Your task to perform on an android device: toggle priority inbox in the gmail app Image 0: 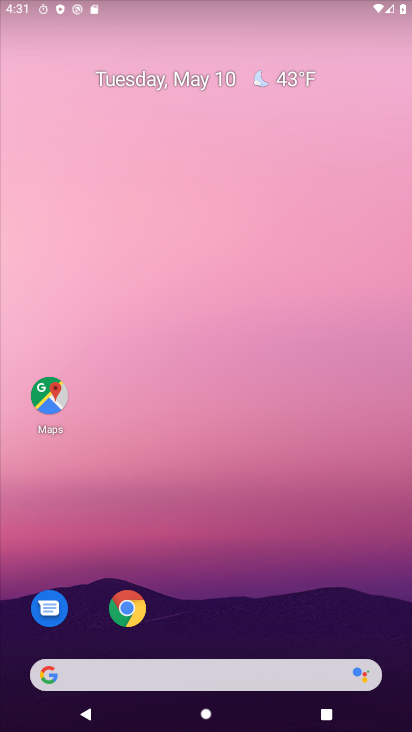
Step 0: drag from (69, 10) to (373, 176)
Your task to perform on an android device: toggle priority inbox in the gmail app Image 1: 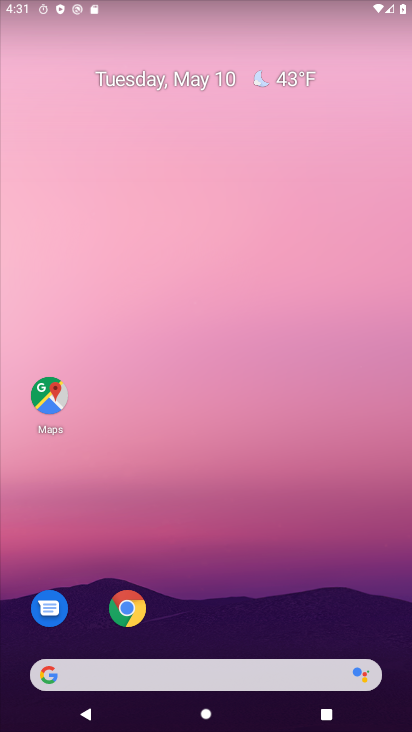
Step 1: click (155, 168)
Your task to perform on an android device: toggle priority inbox in the gmail app Image 2: 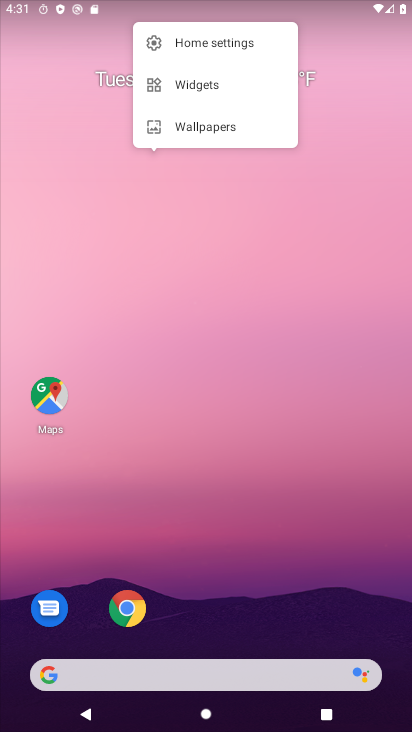
Step 2: drag from (157, 264) to (142, 212)
Your task to perform on an android device: toggle priority inbox in the gmail app Image 3: 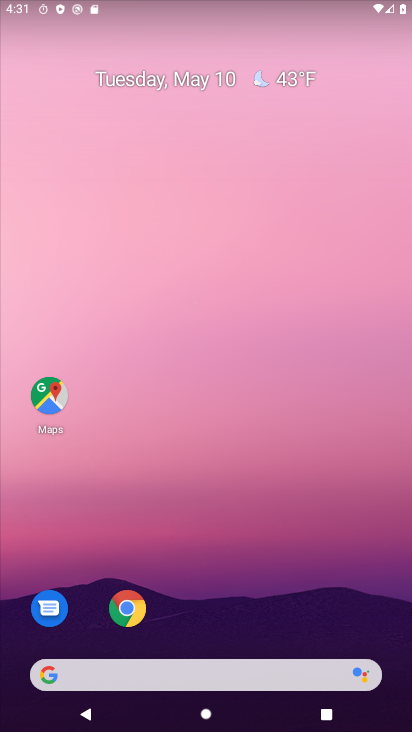
Step 3: drag from (148, 267) to (38, 13)
Your task to perform on an android device: toggle priority inbox in the gmail app Image 4: 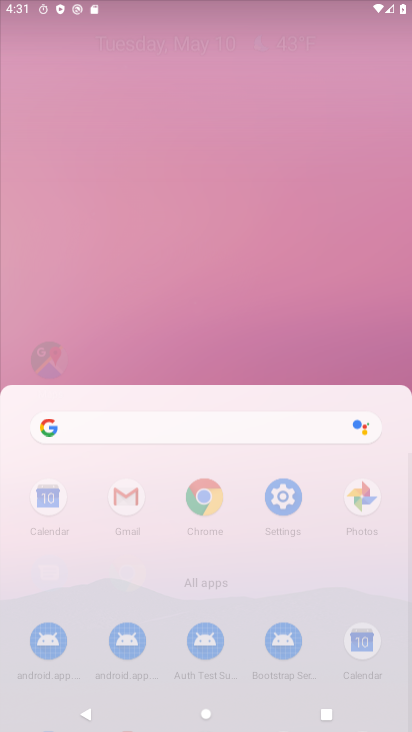
Step 4: drag from (181, 429) to (45, 31)
Your task to perform on an android device: toggle priority inbox in the gmail app Image 5: 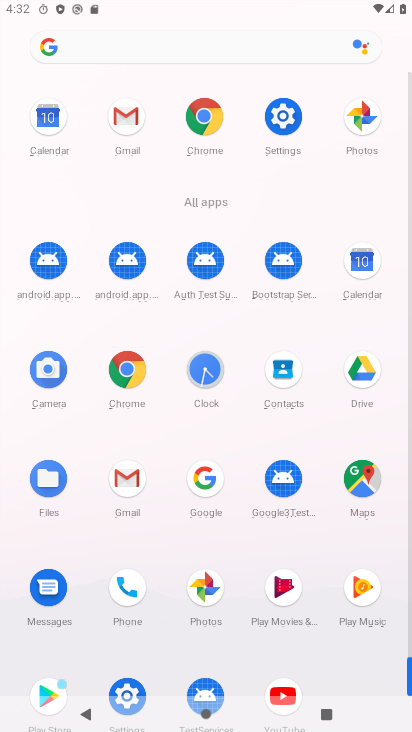
Step 5: click (123, 485)
Your task to perform on an android device: toggle priority inbox in the gmail app Image 6: 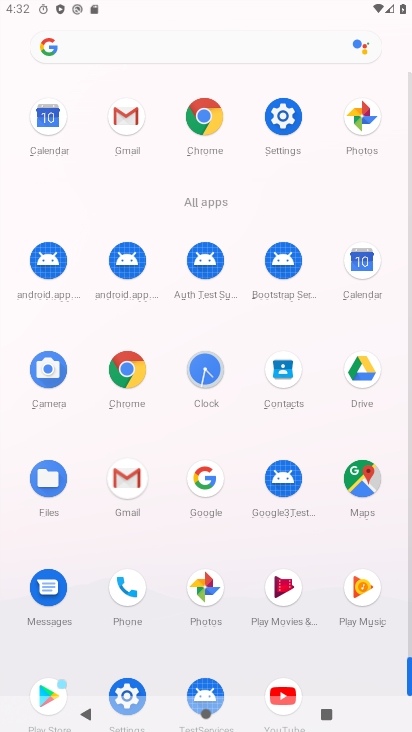
Step 6: click (120, 483)
Your task to perform on an android device: toggle priority inbox in the gmail app Image 7: 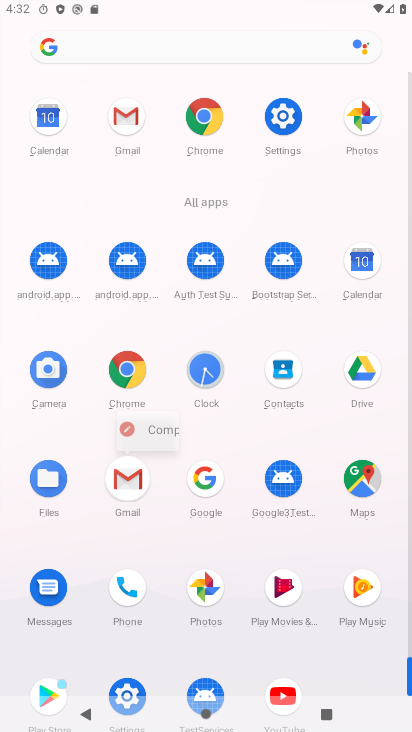
Step 7: click (119, 480)
Your task to perform on an android device: toggle priority inbox in the gmail app Image 8: 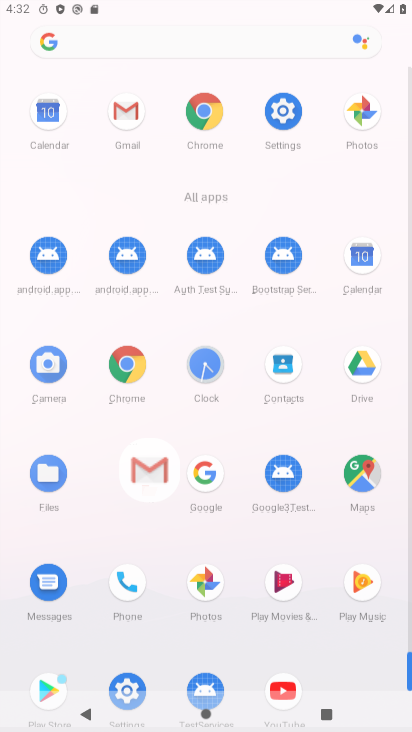
Step 8: click (115, 473)
Your task to perform on an android device: toggle priority inbox in the gmail app Image 9: 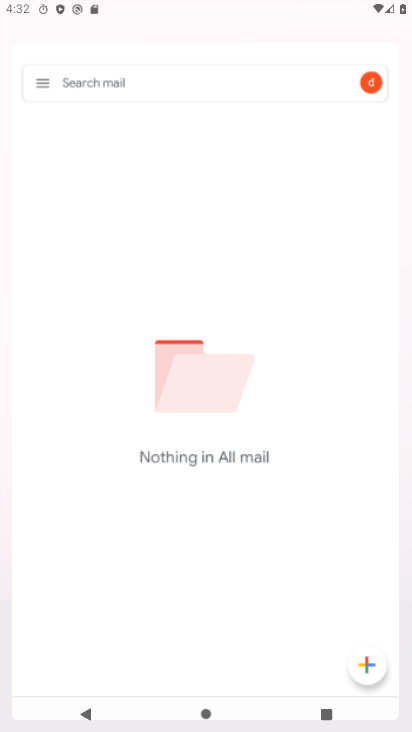
Step 9: click (121, 483)
Your task to perform on an android device: toggle priority inbox in the gmail app Image 10: 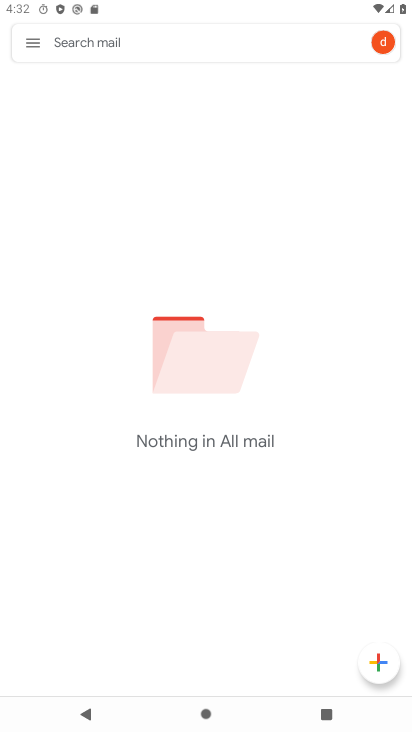
Step 10: click (122, 483)
Your task to perform on an android device: toggle priority inbox in the gmail app Image 11: 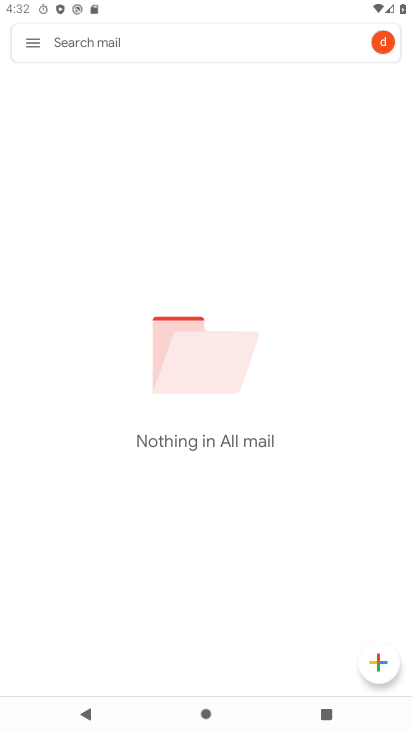
Step 11: drag from (35, 45) to (94, 665)
Your task to perform on an android device: toggle priority inbox in the gmail app Image 12: 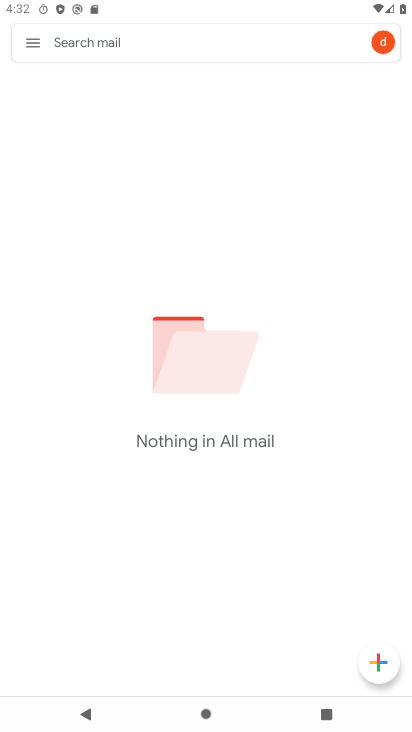
Step 12: click (33, 46)
Your task to perform on an android device: toggle priority inbox in the gmail app Image 13: 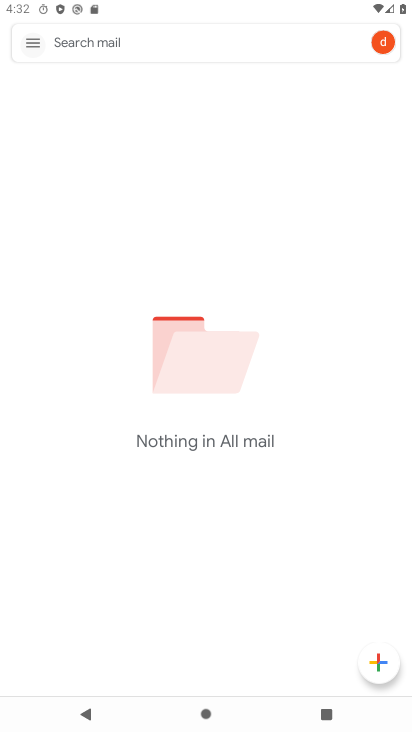
Step 13: click (33, 46)
Your task to perform on an android device: toggle priority inbox in the gmail app Image 14: 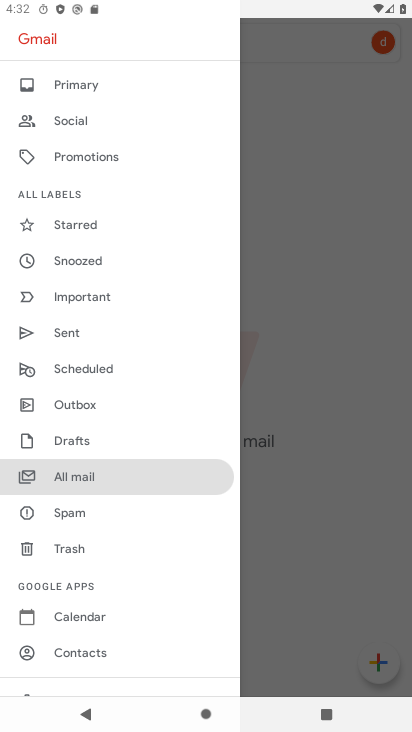
Step 14: drag from (90, 374) to (71, 168)
Your task to perform on an android device: toggle priority inbox in the gmail app Image 15: 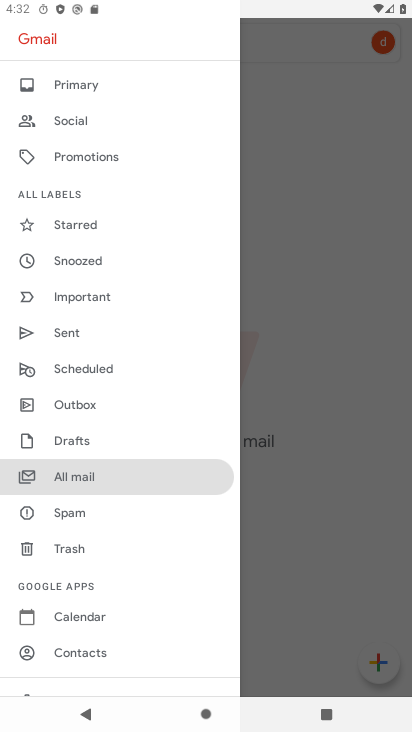
Step 15: drag from (193, 484) to (146, 75)
Your task to perform on an android device: toggle priority inbox in the gmail app Image 16: 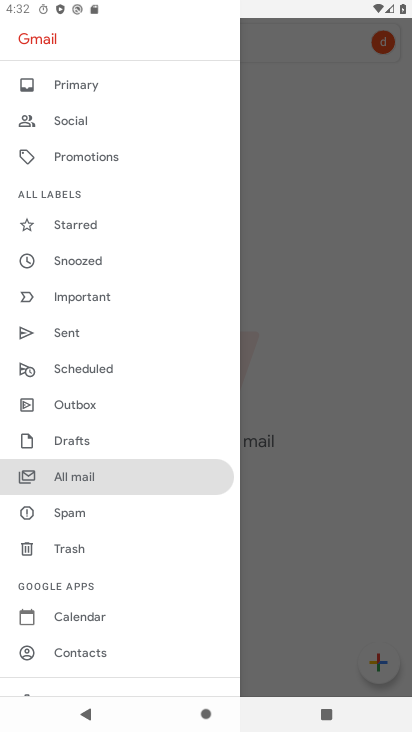
Step 16: drag from (84, 639) to (77, 202)
Your task to perform on an android device: toggle priority inbox in the gmail app Image 17: 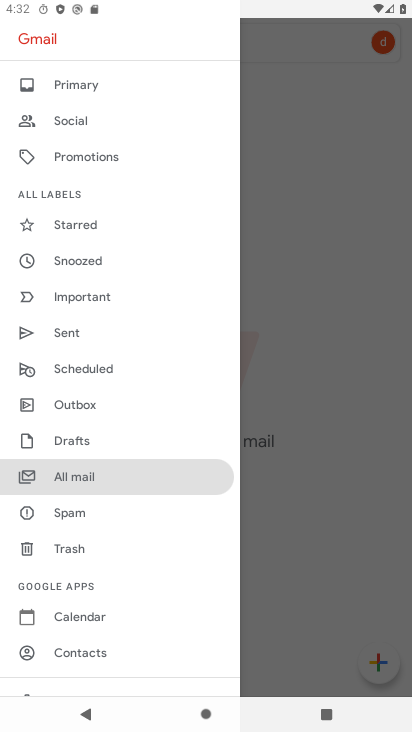
Step 17: click (102, 61)
Your task to perform on an android device: toggle priority inbox in the gmail app Image 18: 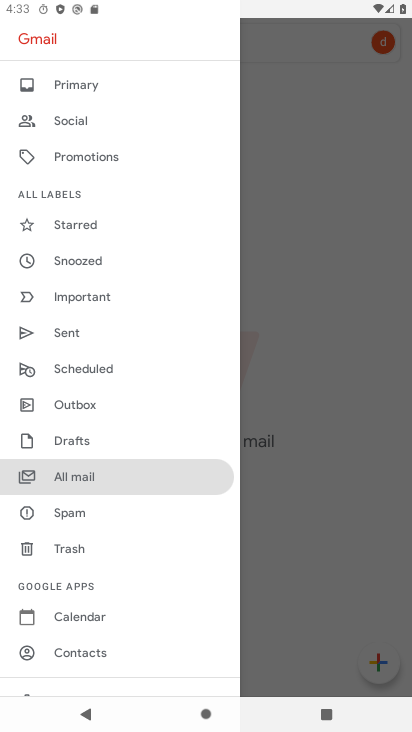
Step 18: drag from (94, 411) to (89, 237)
Your task to perform on an android device: toggle priority inbox in the gmail app Image 19: 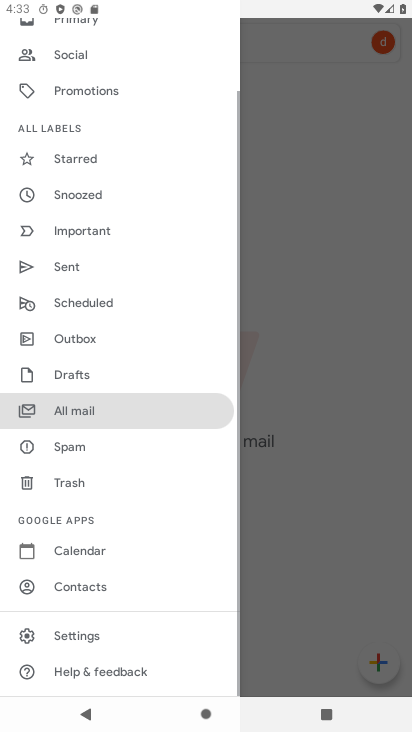
Step 19: drag from (121, 427) to (114, 126)
Your task to perform on an android device: toggle priority inbox in the gmail app Image 20: 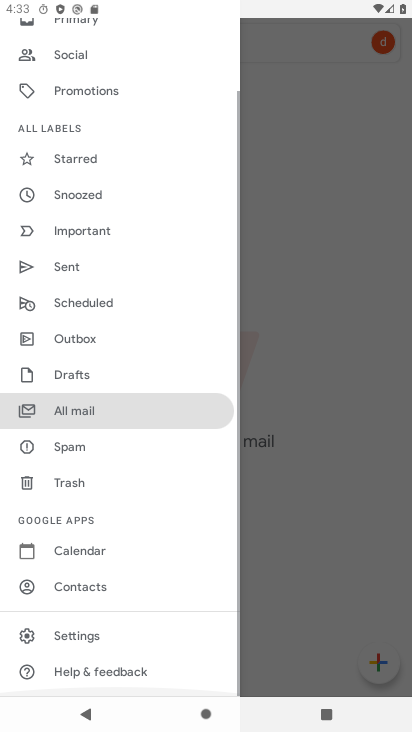
Step 20: drag from (113, 450) to (92, 211)
Your task to perform on an android device: toggle priority inbox in the gmail app Image 21: 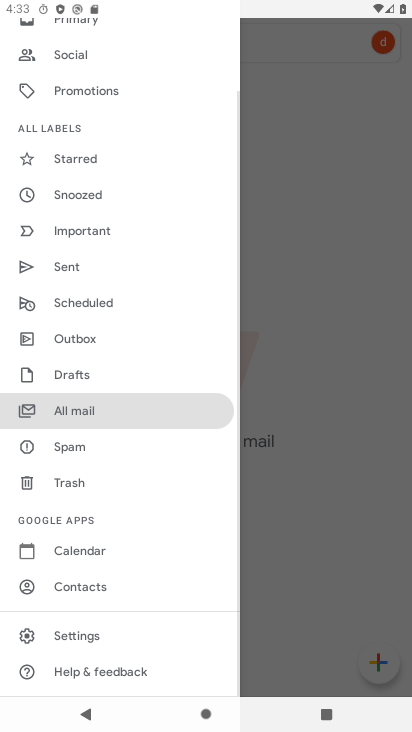
Step 21: click (65, 639)
Your task to perform on an android device: toggle priority inbox in the gmail app Image 22: 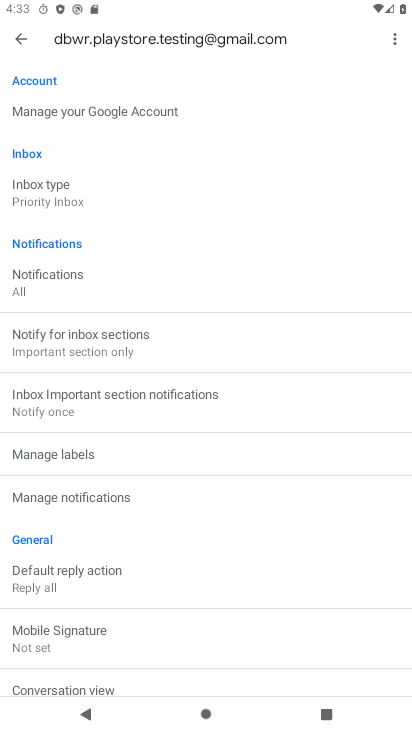
Step 22: click (47, 184)
Your task to perform on an android device: toggle priority inbox in the gmail app Image 23: 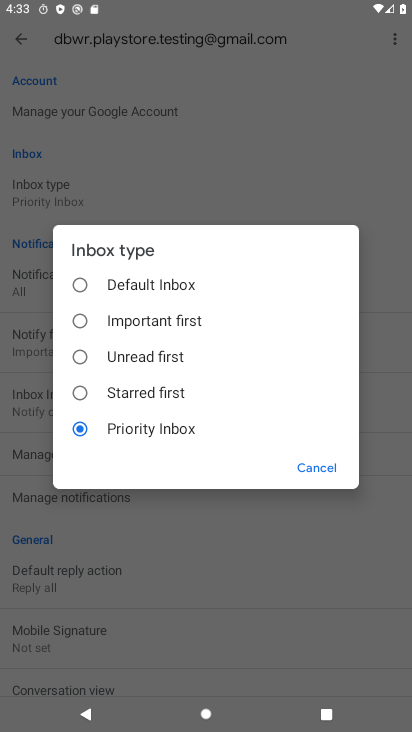
Step 23: click (323, 467)
Your task to perform on an android device: toggle priority inbox in the gmail app Image 24: 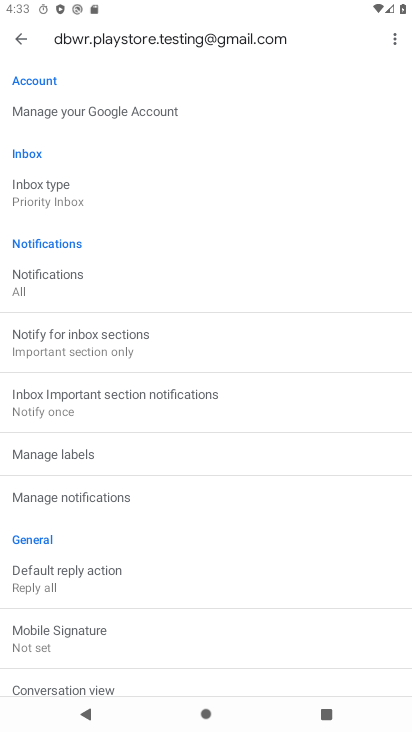
Step 24: task complete